Your task to perform on an android device: turn off picture-in-picture Image 0: 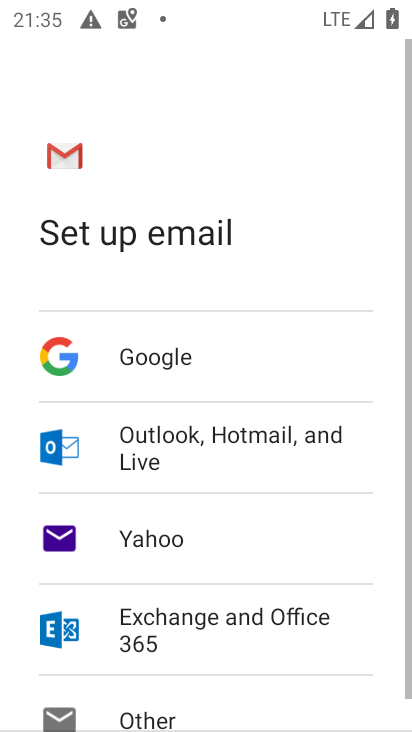
Step 0: press home button
Your task to perform on an android device: turn off picture-in-picture Image 1: 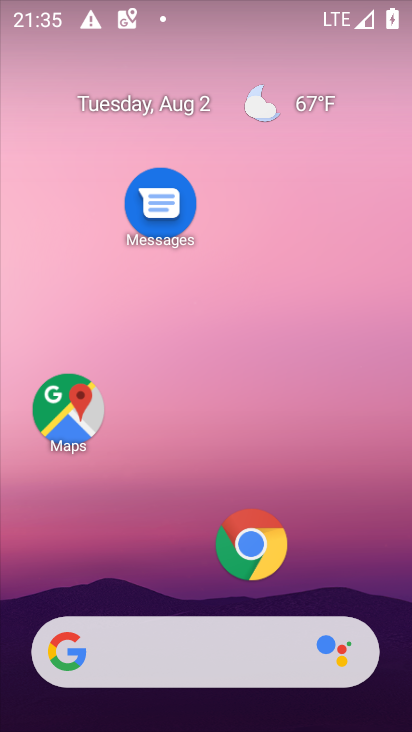
Step 1: click (241, 546)
Your task to perform on an android device: turn off picture-in-picture Image 2: 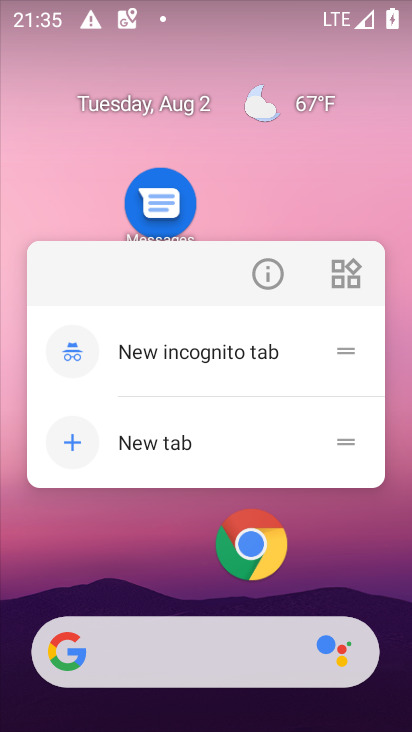
Step 2: click (267, 259)
Your task to perform on an android device: turn off picture-in-picture Image 3: 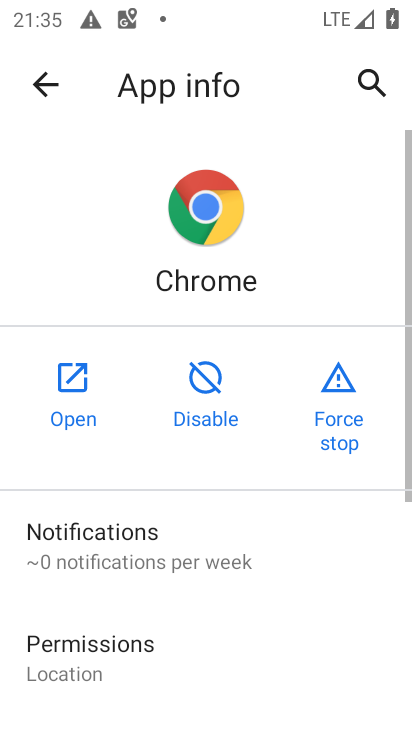
Step 3: drag from (222, 690) to (290, 294)
Your task to perform on an android device: turn off picture-in-picture Image 4: 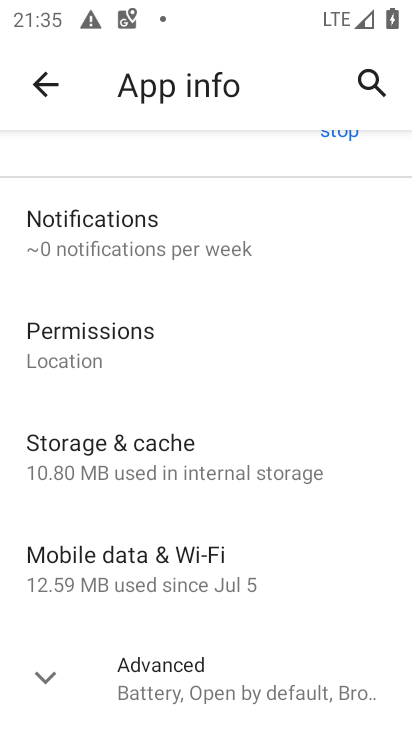
Step 4: click (178, 658)
Your task to perform on an android device: turn off picture-in-picture Image 5: 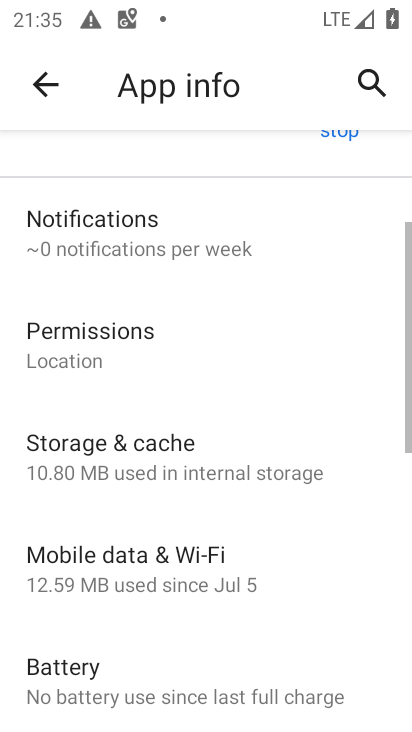
Step 5: drag from (197, 641) to (258, 167)
Your task to perform on an android device: turn off picture-in-picture Image 6: 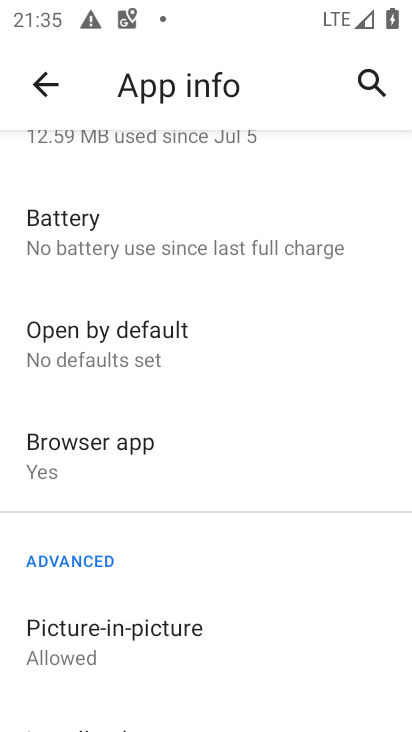
Step 6: click (203, 629)
Your task to perform on an android device: turn off picture-in-picture Image 7: 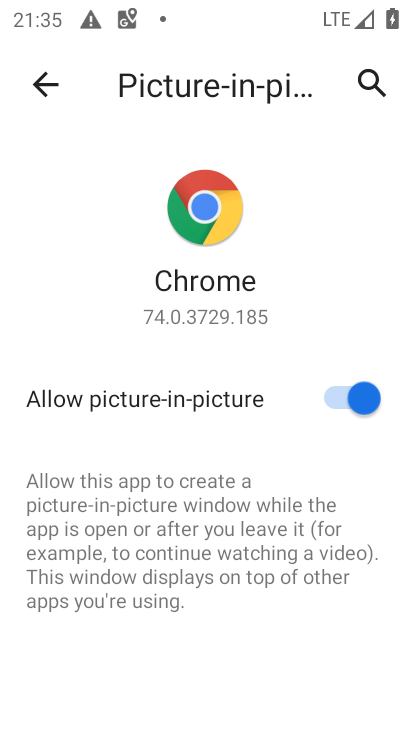
Step 7: click (337, 404)
Your task to perform on an android device: turn off picture-in-picture Image 8: 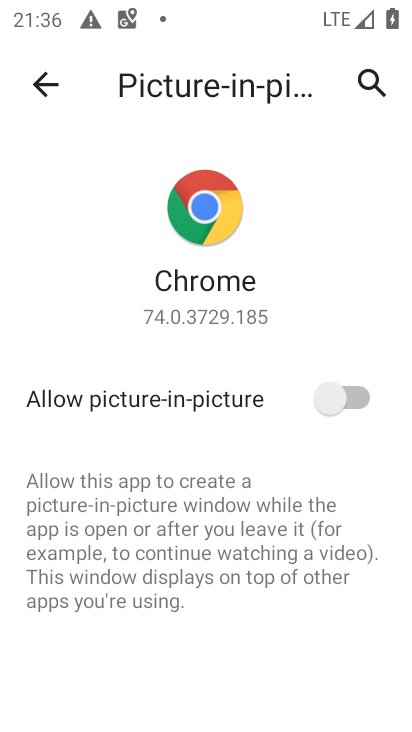
Step 8: task complete